Your task to perform on an android device: open app "Indeed Job Search" Image 0: 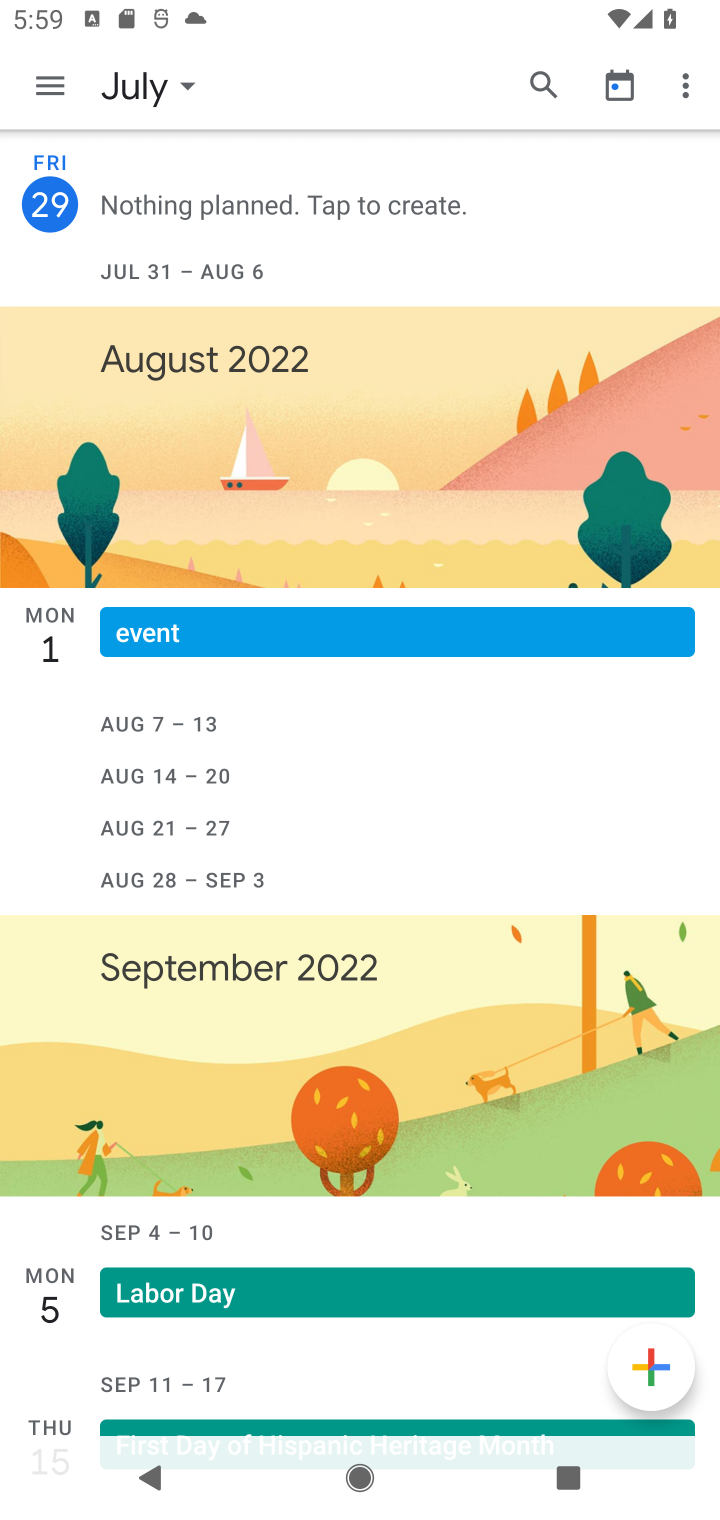
Step 0: press home button
Your task to perform on an android device: open app "Indeed Job Search" Image 1: 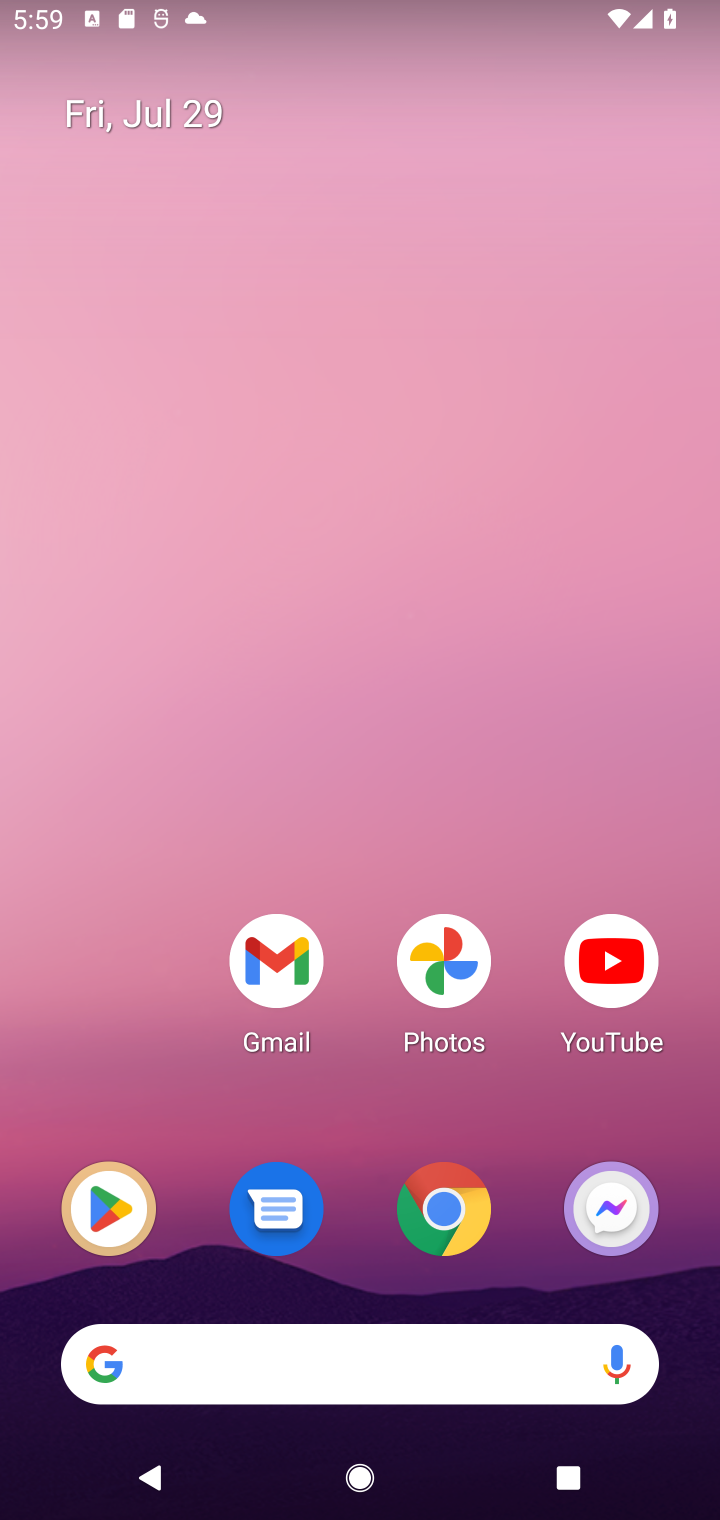
Step 1: click (102, 1219)
Your task to perform on an android device: open app "Indeed Job Search" Image 2: 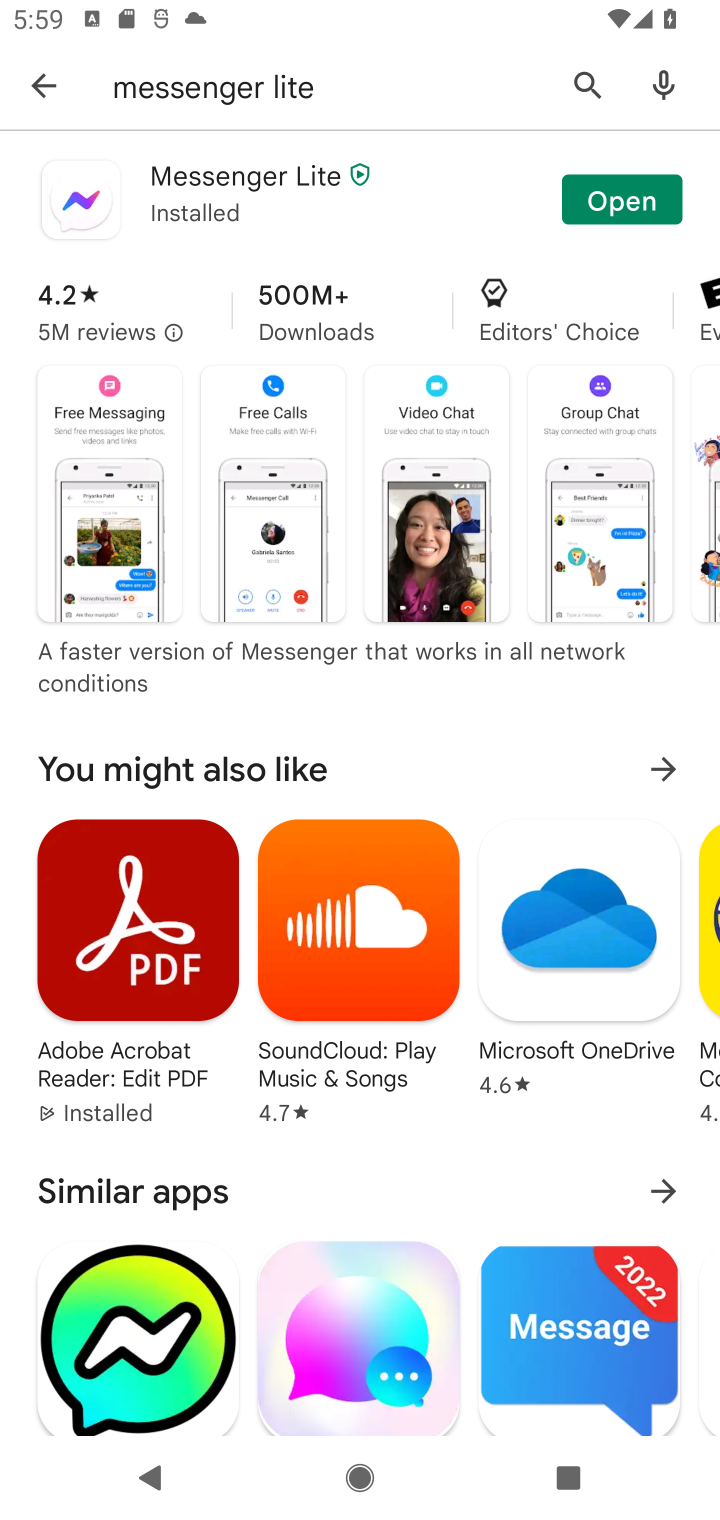
Step 2: click (591, 76)
Your task to perform on an android device: open app "Indeed Job Search" Image 3: 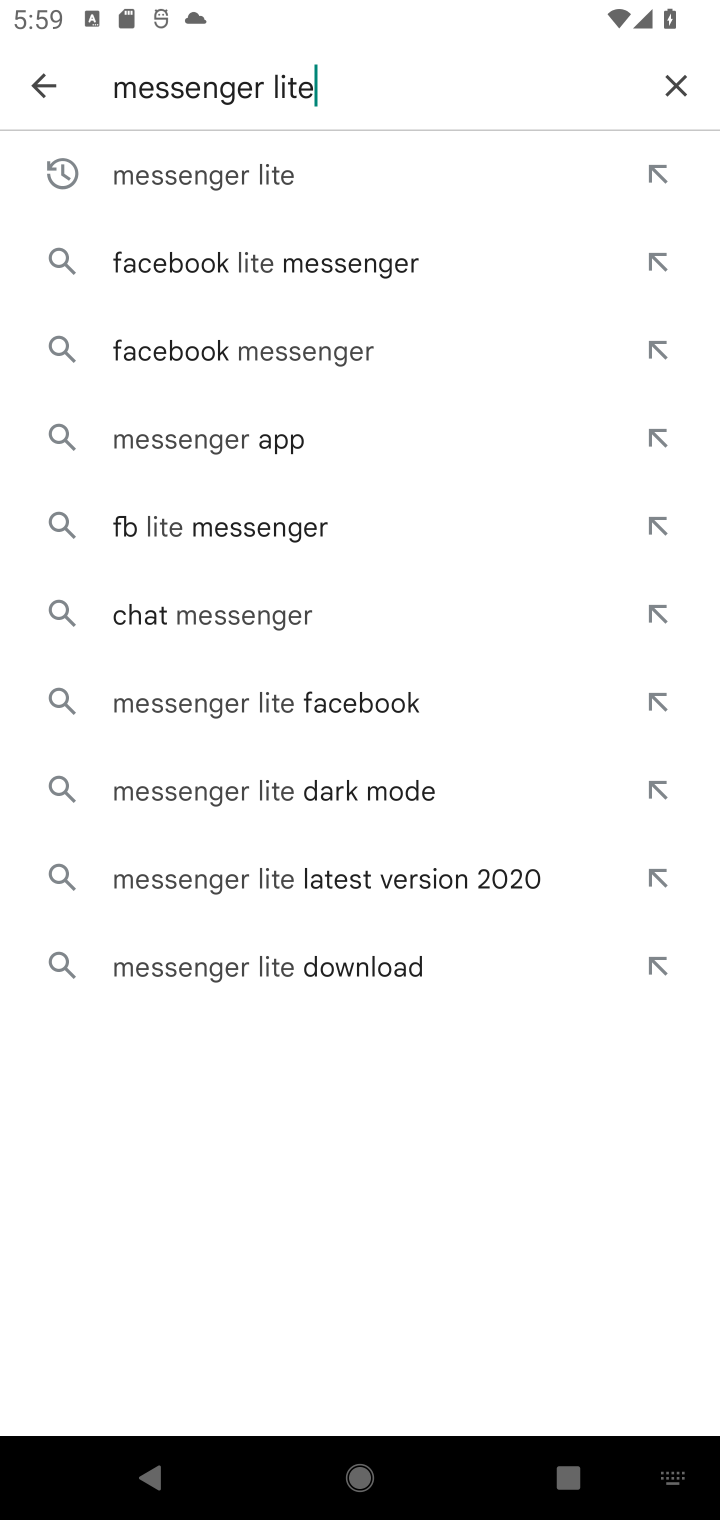
Step 3: click (686, 84)
Your task to perform on an android device: open app "Indeed Job Search" Image 4: 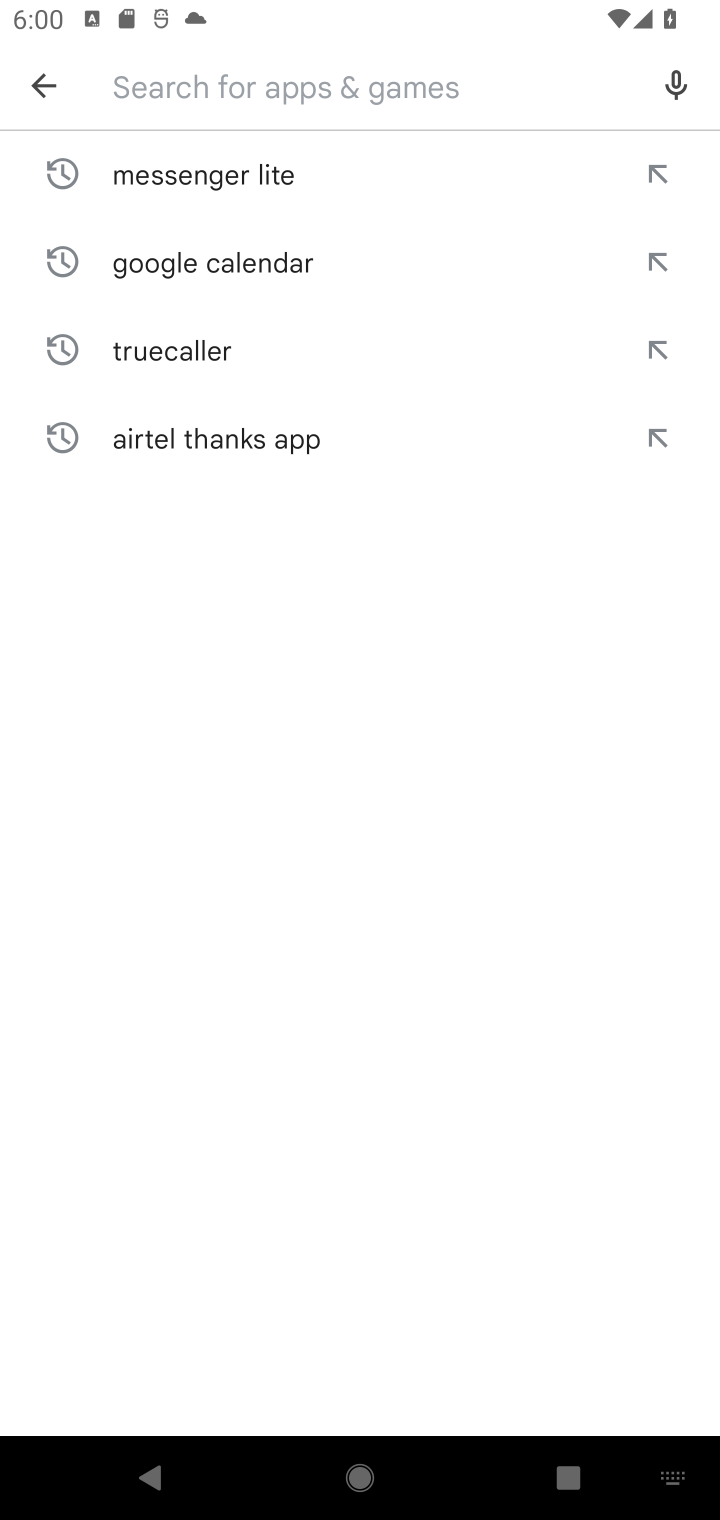
Step 4: click (325, 90)
Your task to perform on an android device: open app "Indeed Job Search" Image 5: 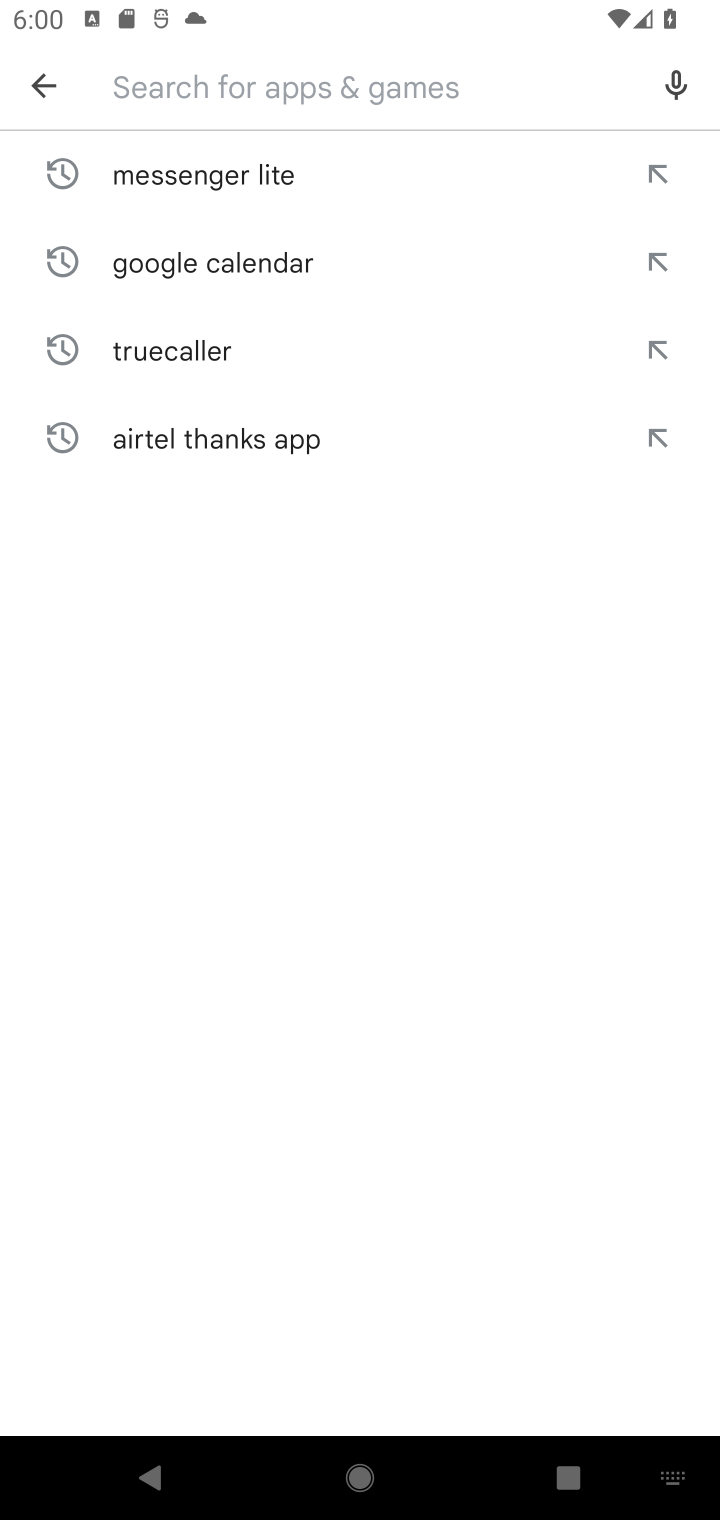
Step 5: type "Indeed Job Search"
Your task to perform on an android device: open app "Indeed Job Search" Image 6: 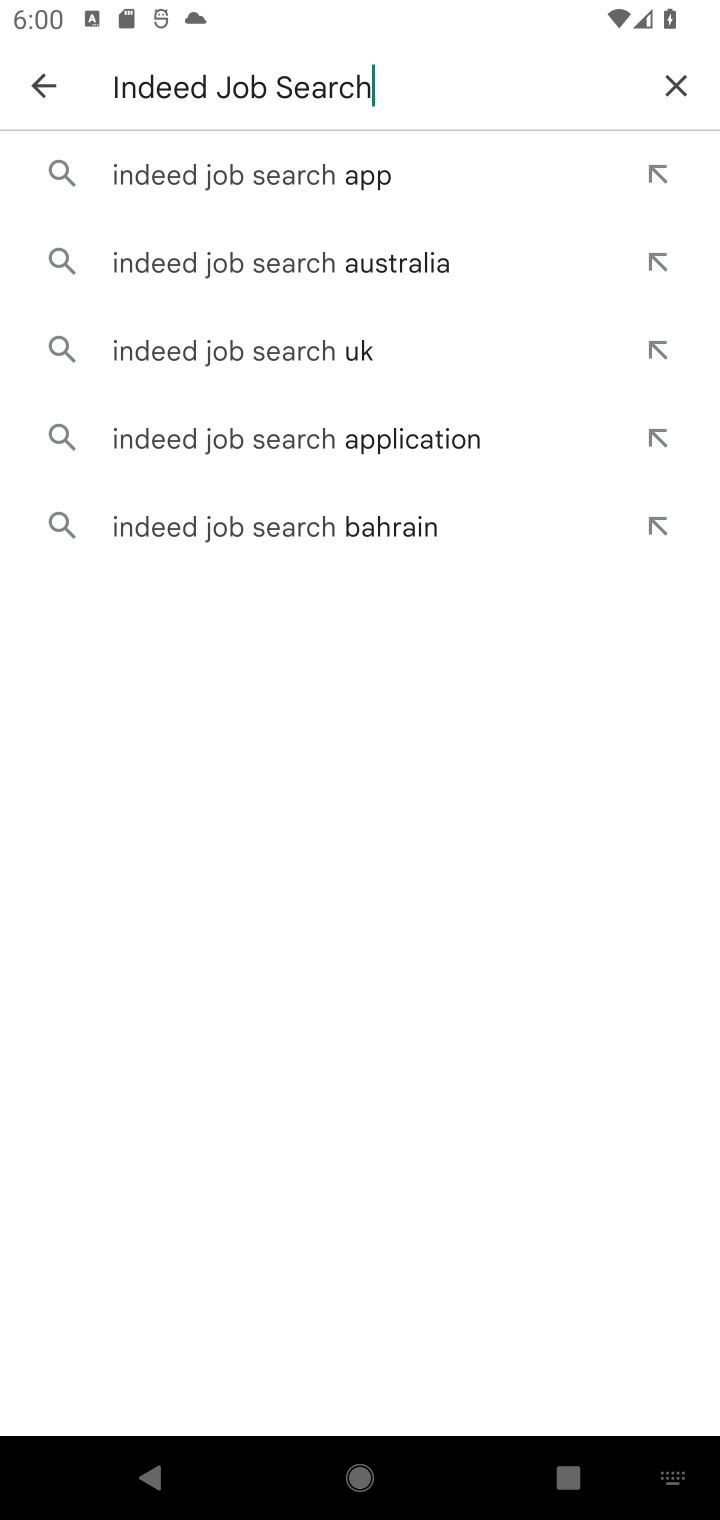
Step 6: click (210, 183)
Your task to perform on an android device: open app "Indeed Job Search" Image 7: 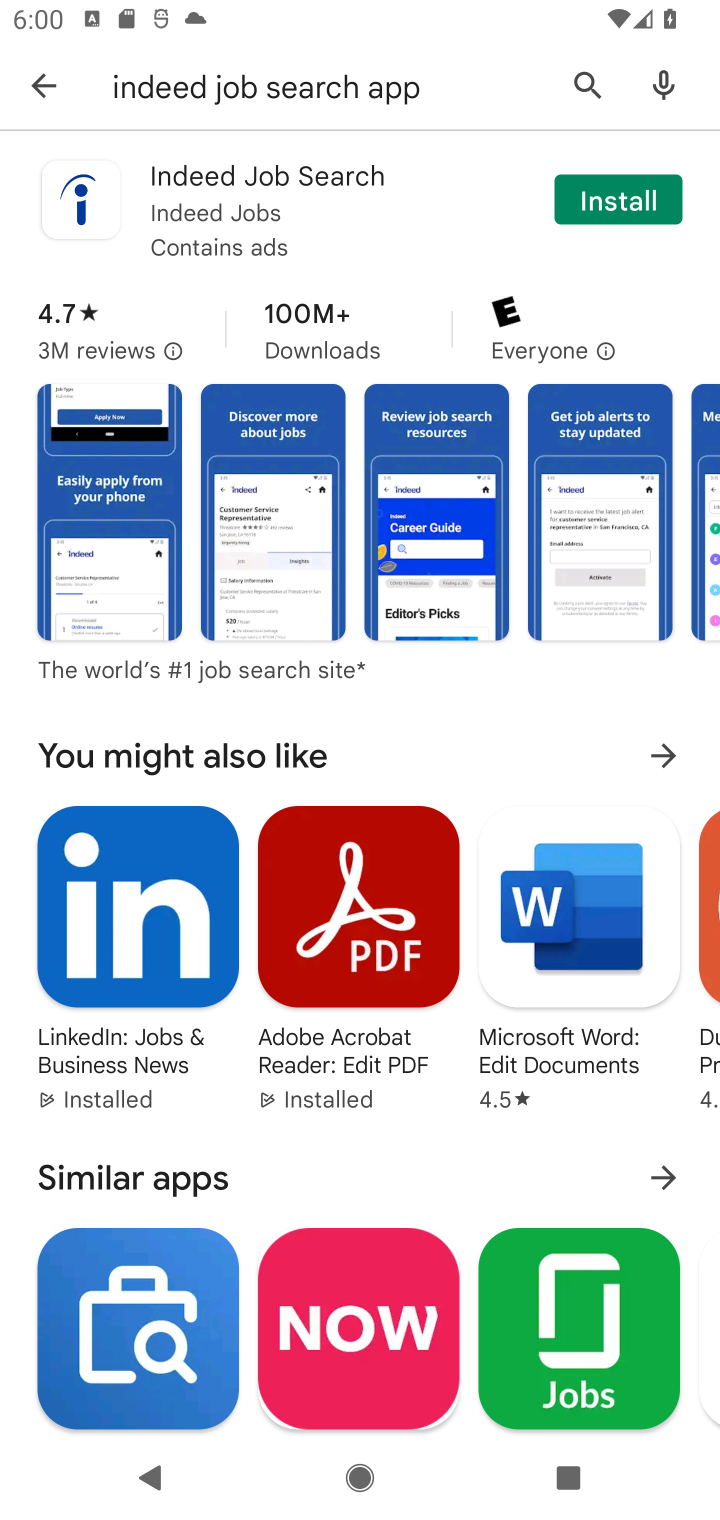
Step 7: task complete